Your task to perform on an android device: Go to network settings Image 0: 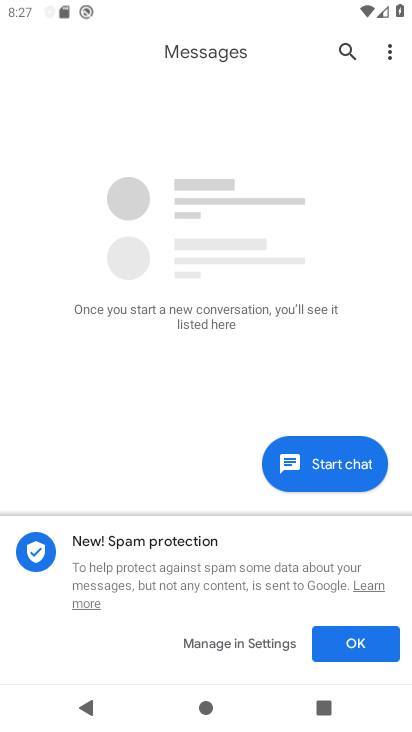
Step 0: press home button
Your task to perform on an android device: Go to network settings Image 1: 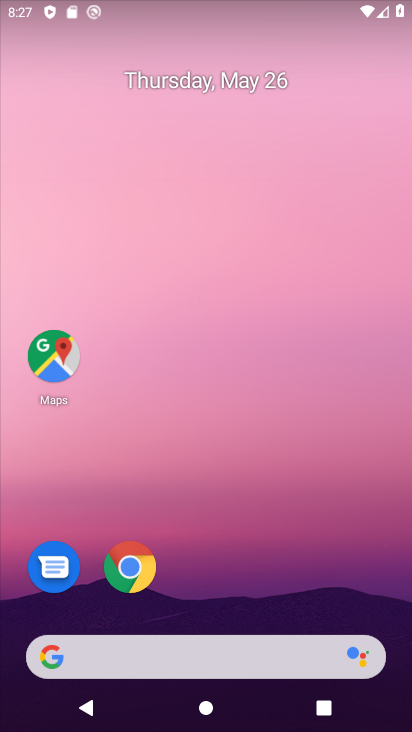
Step 1: drag from (292, 573) to (256, 140)
Your task to perform on an android device: Go to network settings Image 2: 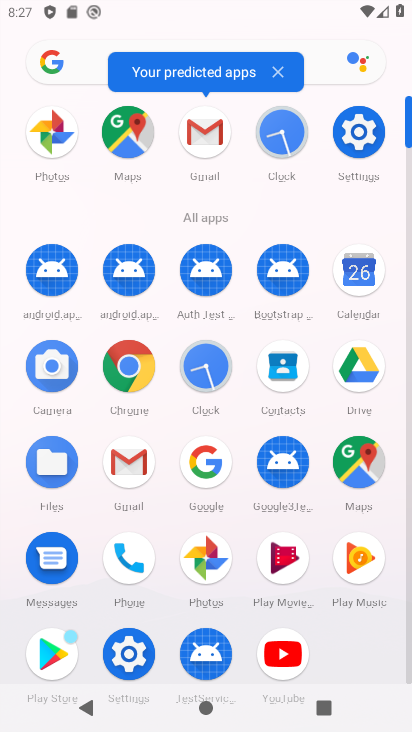
Step 2: click (361, 133)
Your task to perform on an android device: Go to network settings Image 3: 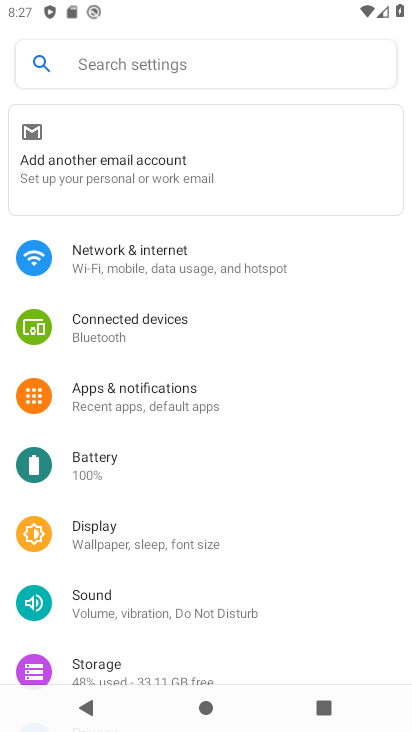
Step 3: click (165, 259)
Your task to perform on an android device: Go to network settings Image 4: 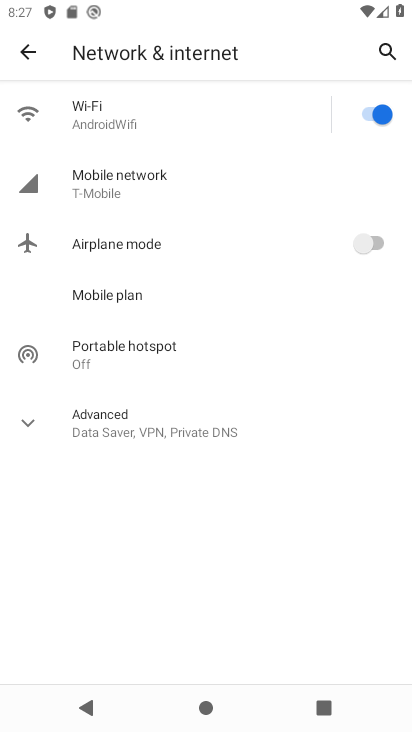
Step 4: task complete